Your task to perform on an android device: search for starred emails in the gmail app Image 0: 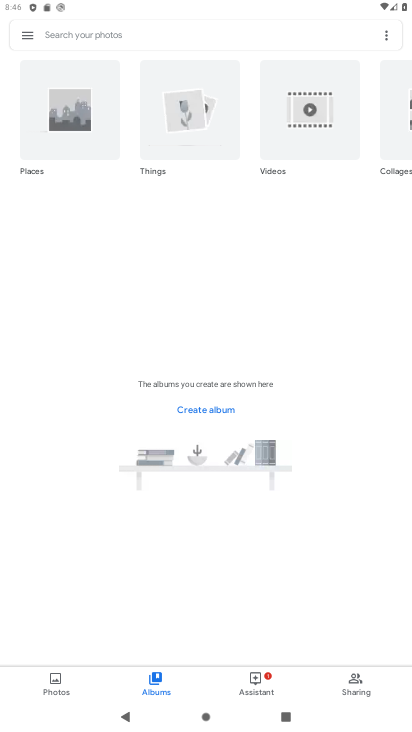
Step 0: press home button
Your task to perform on an android device: search for starred emails in the gmail app Image 1: 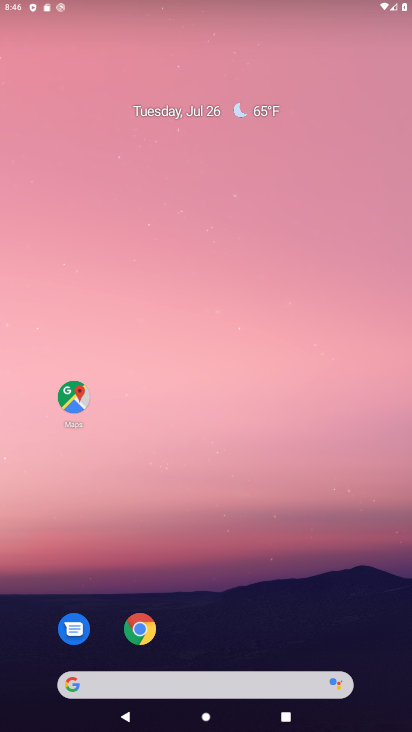
Step 1: drag from (330, 592) to (197, 36)
Your task to perform on an android device: search for starred emails in the gmail app Image 2: 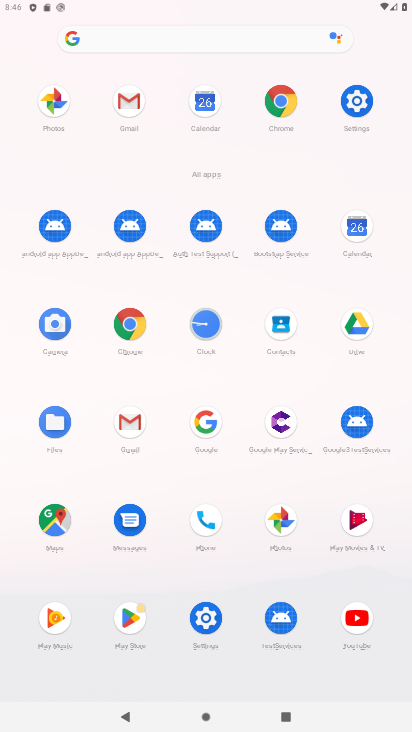
Step 2: click (132, 96)
Your task to perform on an android device: search for starred emails in the gmail app Image 3: 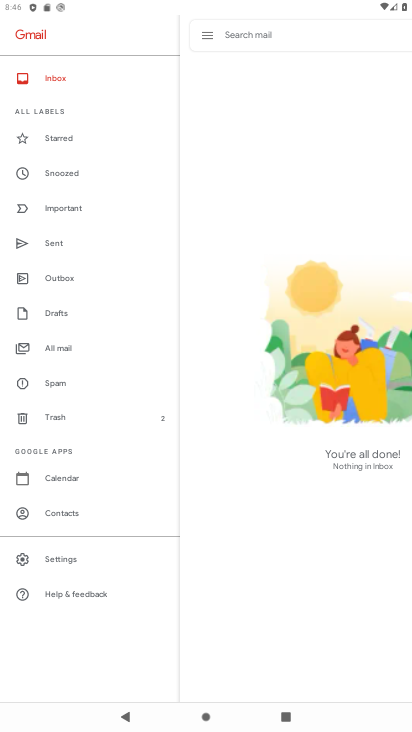
Step 3: click (68, 138)
Your task to perform on an android device: search for starred emails in the gmail app Image 4: 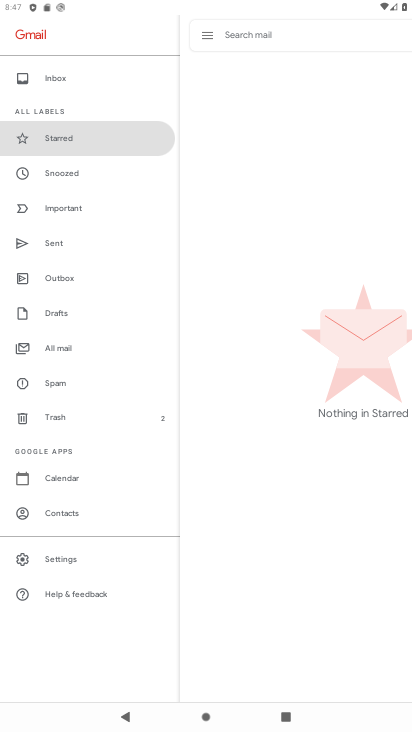
Step 4: task complete